Your task to perform on an android device: toggle location history Image 0: 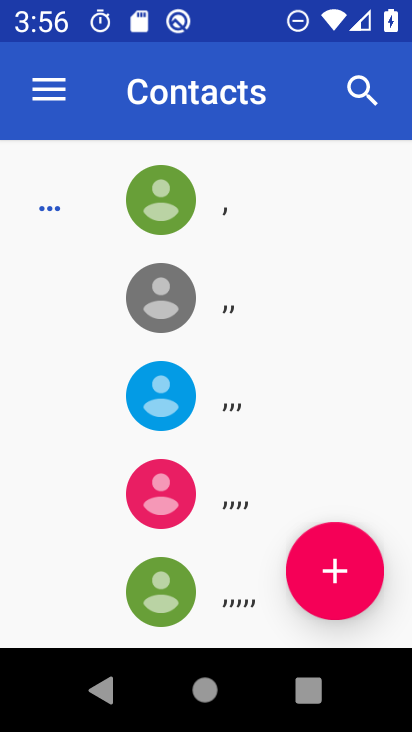
Step 0: press home button
Your task to perform on an android device: toggle location history Image 1: 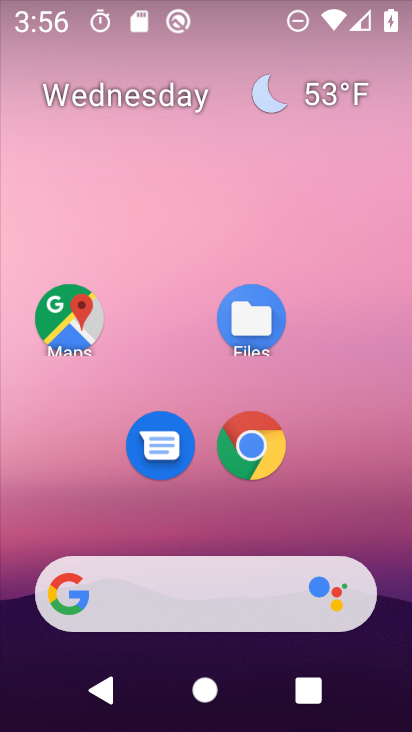
Step 1: drag from (339, 476) to (274, 75)
Your task to perform on an android device: toggle location history Image 2: 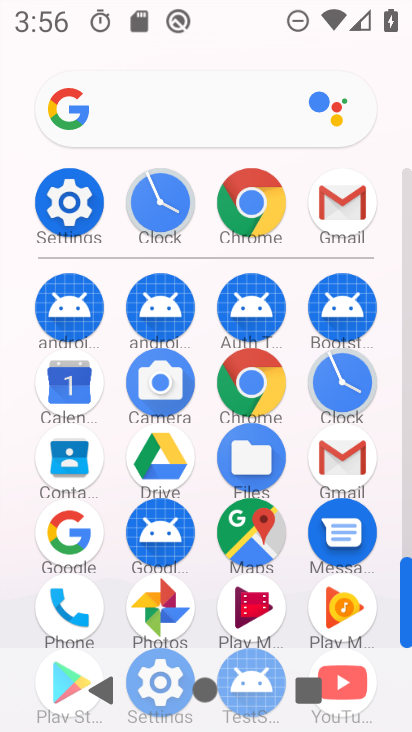
Step 2: click (62, 179)
Your task to perform on an android device: toggle location history Image 3: 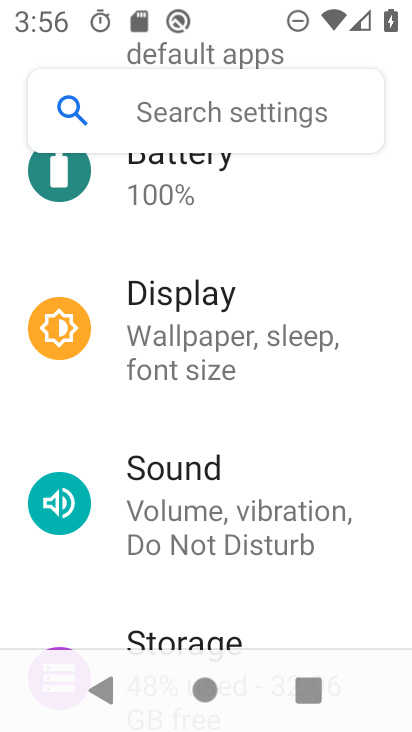
Step 3: drag from (371, 613) to (374, 303)
Your task to perform on an android device: toggle location history Image 4: 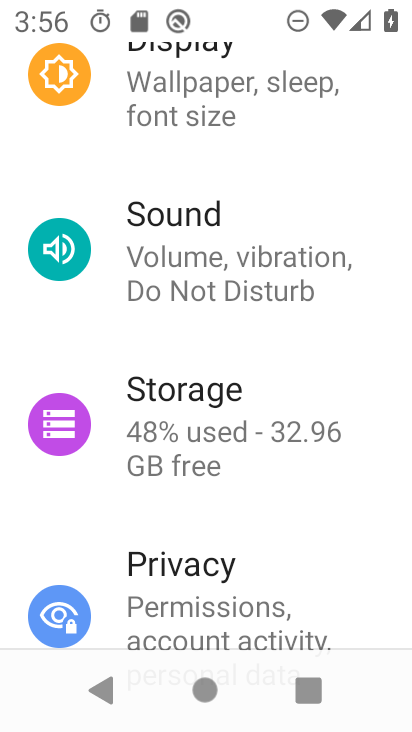
Step 4: drag from (306, 480) to (287, 297)
Your task to perform on an android device: toggle location history Image 5: 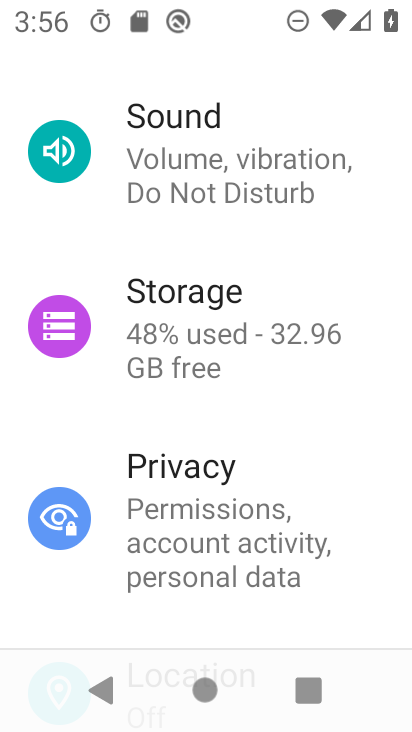
Step 5: drag from (338, 616) to (287, 343)
Your task to perform on an android device: toggle location history Image 6: 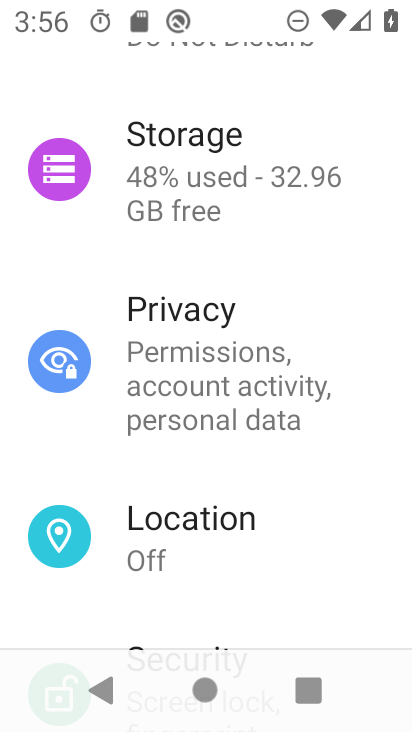
Step 6: click (176, 562)
Your task to perform on an android device: toggle location history Image 7: 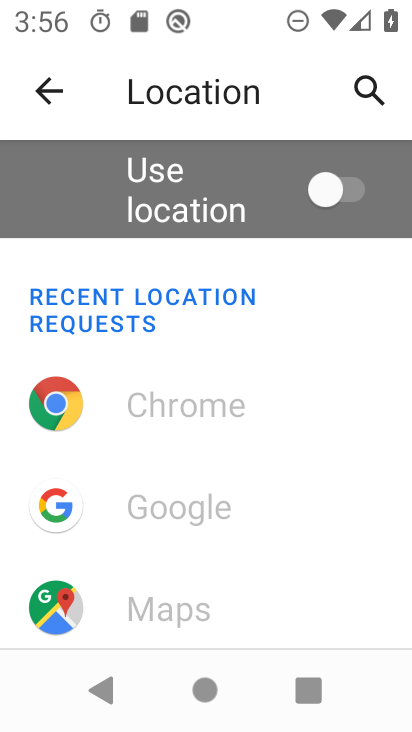
Step 7: drag from (334, 587) to (315, 408)
Your task to perform on an android device: toggle location history Image 8: 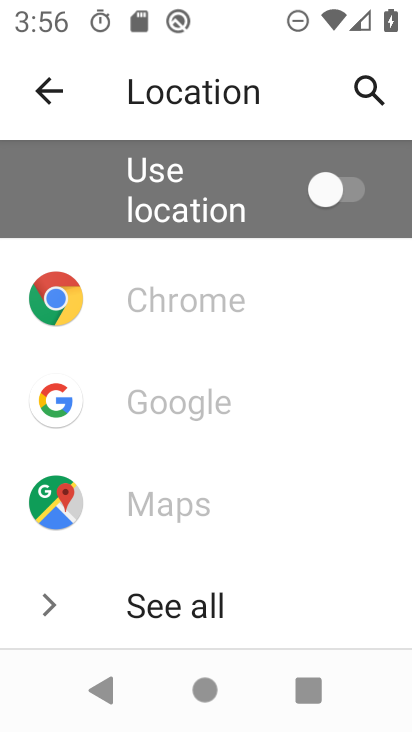
Step 8: click (246, 583)
Your task to perform on an android device: toggle location history Image 9: 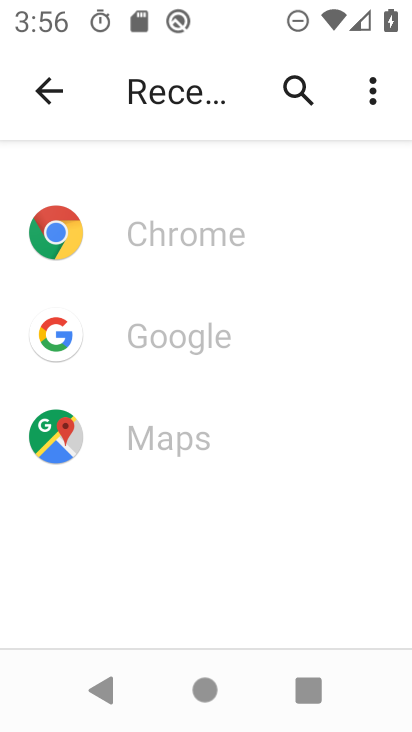
Step 9: click (55, 100)
Your task to perform on an android device: toggle location history Image 10: 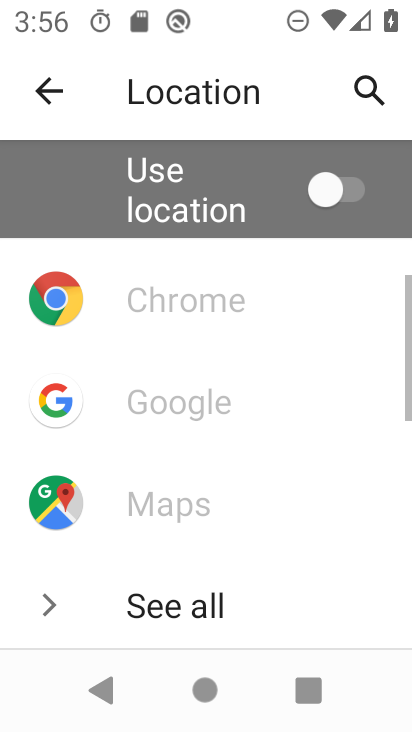
Step 10: click (326, 195)
Your task to perform on an android device: toggle location history Image 11: 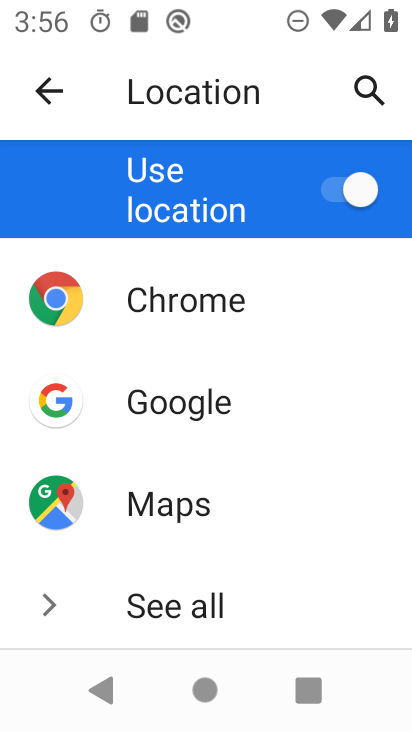
Step 11: drag from (336, 595) to (278, 299)
Your task to perform on an android device: toggle location history Image 12: 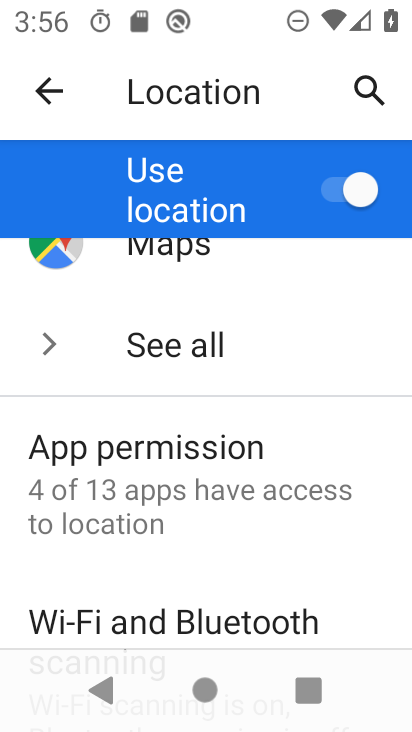
Step 12: drag from (253, 484) to (235, 134)
Your task to perform on an android device: toggle location history Image 13: 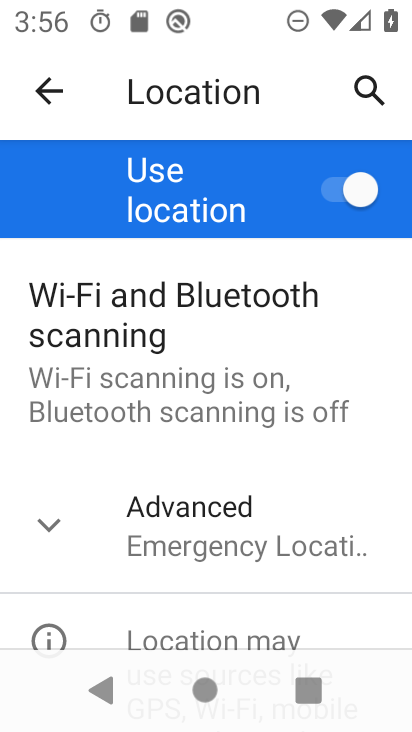
Step 13: click (169, 523)
Your task to perform on an android device: toggle location history Image 14: 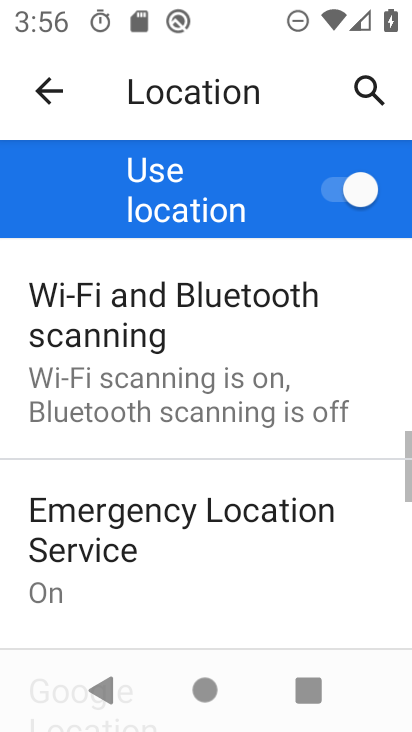
Step 14: drag from (217, 593) to (195, 178)
Your task to perform on an android device: toggle location history Image 15: 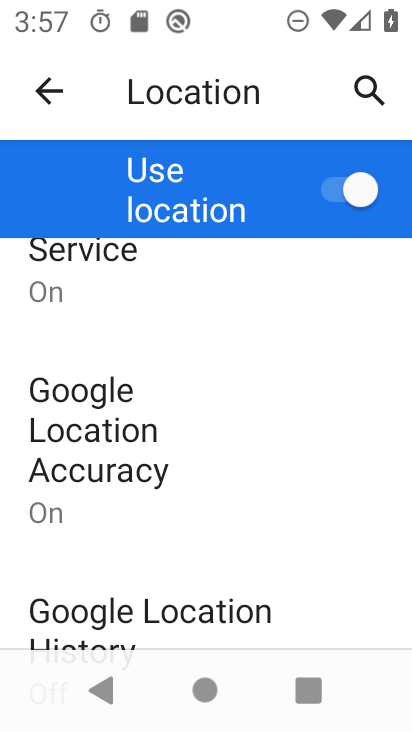
Step 15: click (139, 582)
Your task to perform on an android device: toggle location history Image 16: 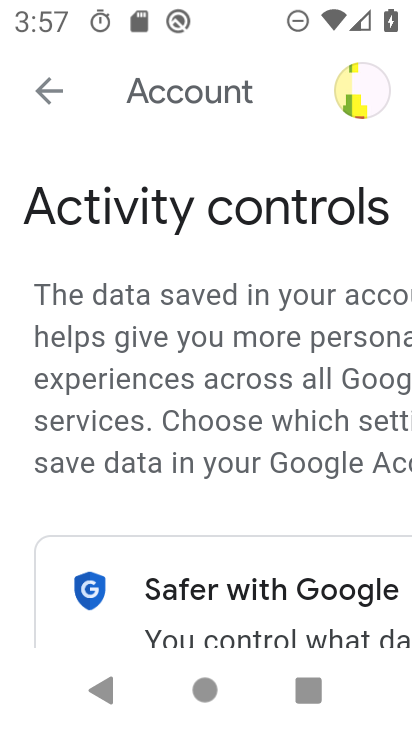
Step 16: drag from (272, 489) to (262, 327)
Your task to perform on an android device: toggle location history Image 17: 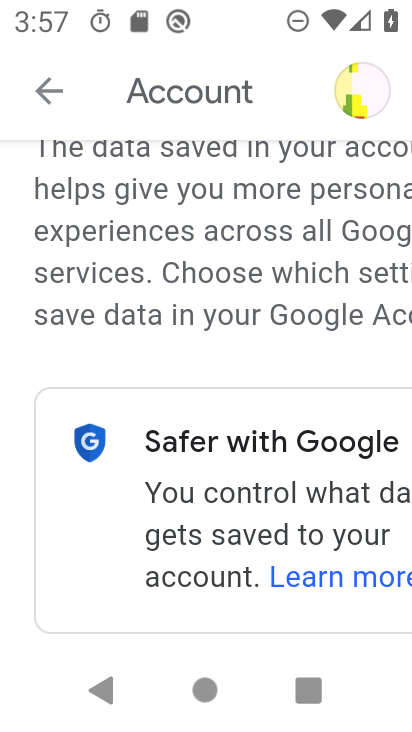
Step 17: drag from (356, 603) to (329, 366)
Your task to perform on an android device: toggle location history Image 18: 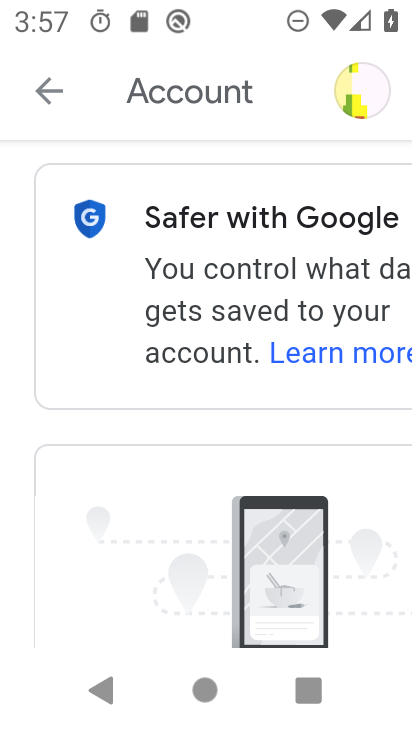
Step 18: drag from (333, 567) to (302, 332)
Your task to perform on an android device: toggle location history Image 19: 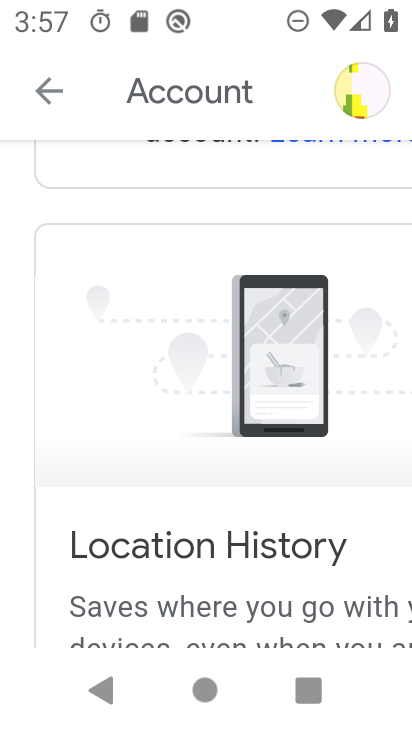
Step 19: click (302, 332)
Your task to perform on an android device: toggle location history Image 20: 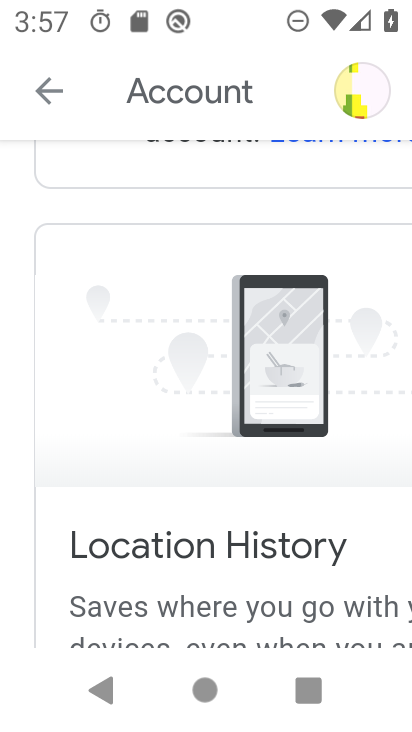
Step 20: drag from (338, 552) to (312, 264)
Your task to perform on an android device: toggle location history Image 21: 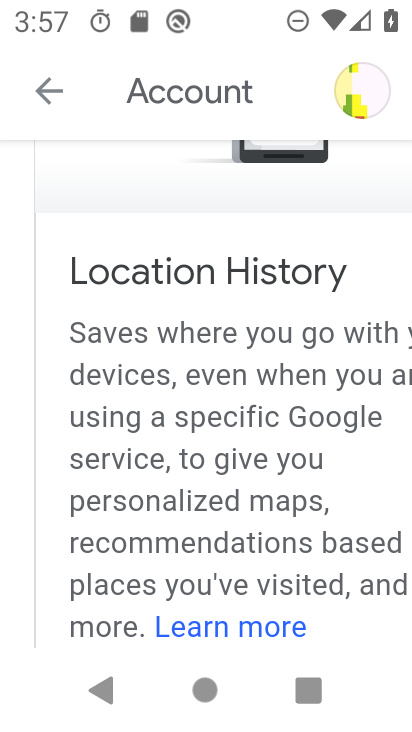
Step 21: drag from (332, 605) to (284, 269)
Your task to perform on an android device: toggle location history Image 22: 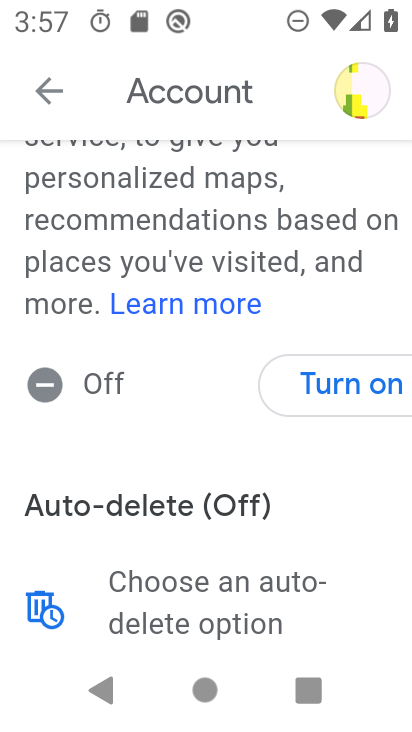
Step 22: click (376, 375)
Your task to perform on an android device: toggle location history Image 23: 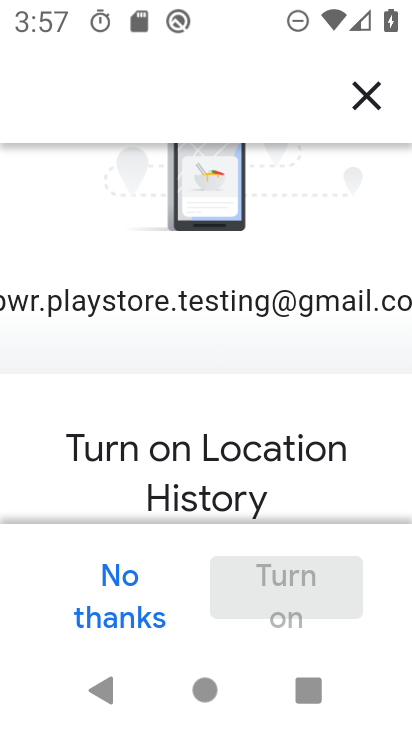
Step 23: click (294, 583)
Your task to perform on an android device: toggle location history Image 24: 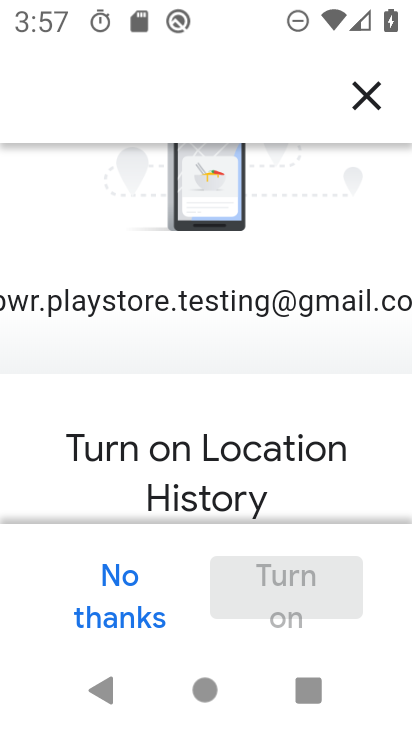
Step 24: click (294, 583)
Your task to perform on an android device: toggle location history Image 25: 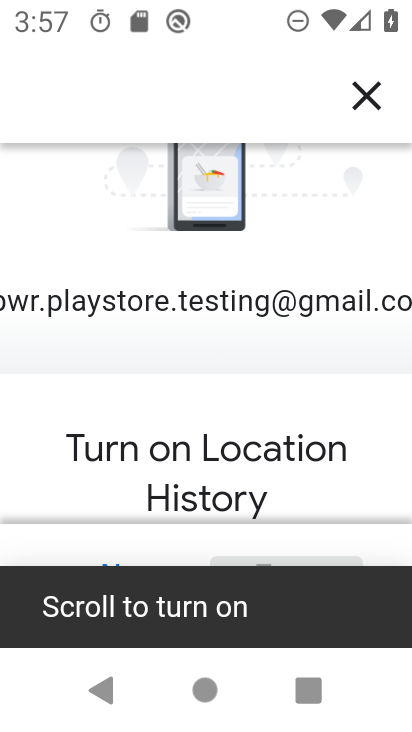
Step 25: click (294, 583)
Your task to perform on an android device: toggle location history Image 26: 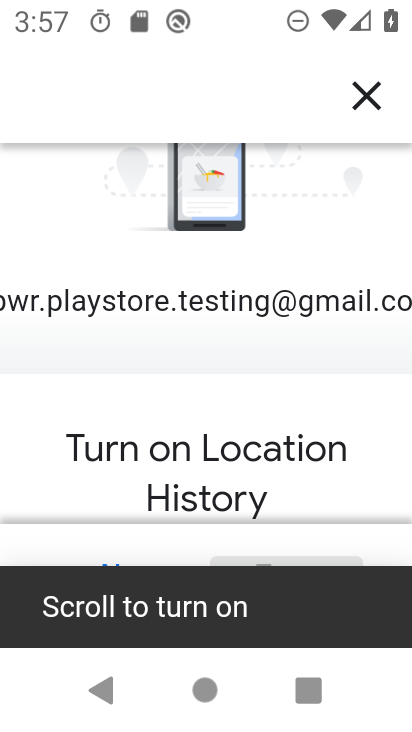
Step 26: task complete